Your task to perform on an android device: open a bookmark in the chrome app Image 0: 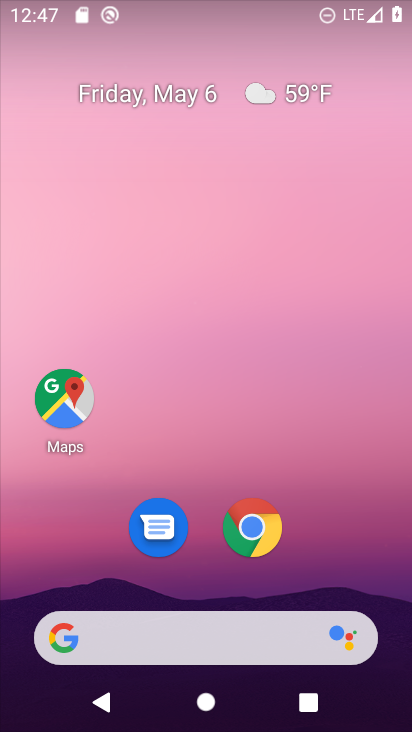
Step 0: click (250, 528)
Your task to perform on an android device: open a bookmark in the chrome app Image 1: 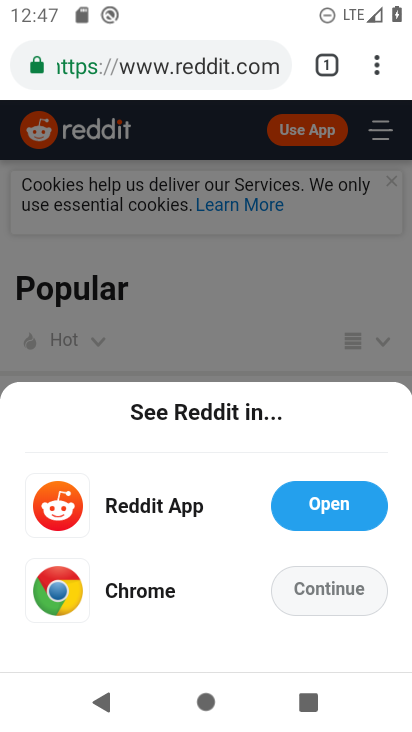
Step 1: click (376, 66)
Your task to perform on an android device: open a bookmark in the chrome app Image 2: 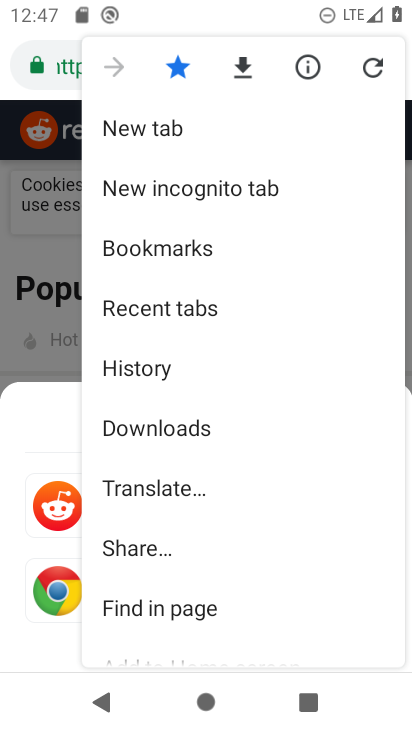
Step 2: click (179, 263)
Your task to perform on an android device: open a bookmark in the chrome app Image 3: 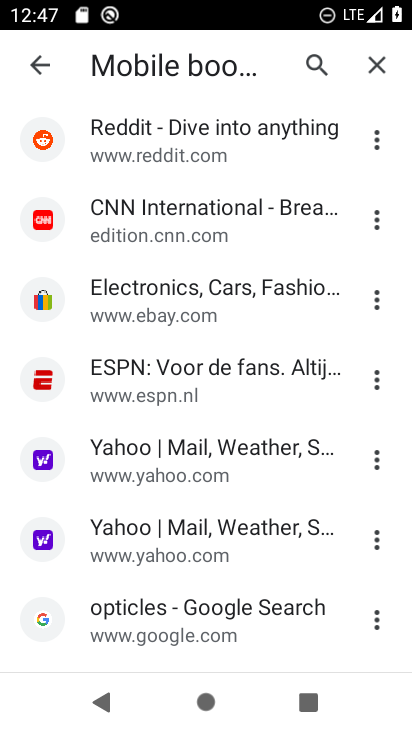
Step 3: task complete